Your task to perform on an android device: toggle improve location accuracy Image 0: 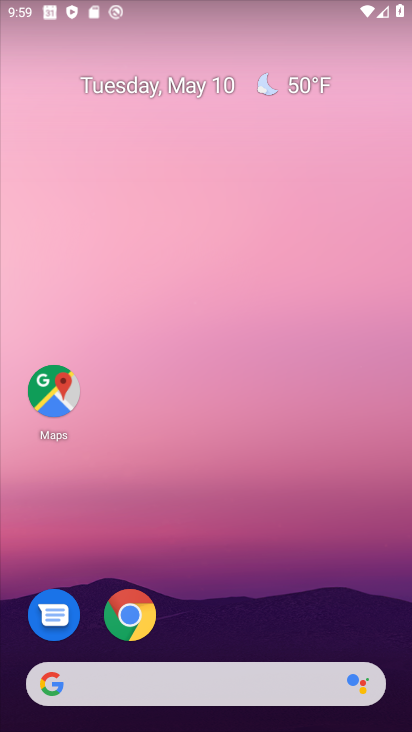
Step 0: drag from (213, 646) to (245, 160)
Your task to perform on an android device: toggle improve location accuracy Image 1: 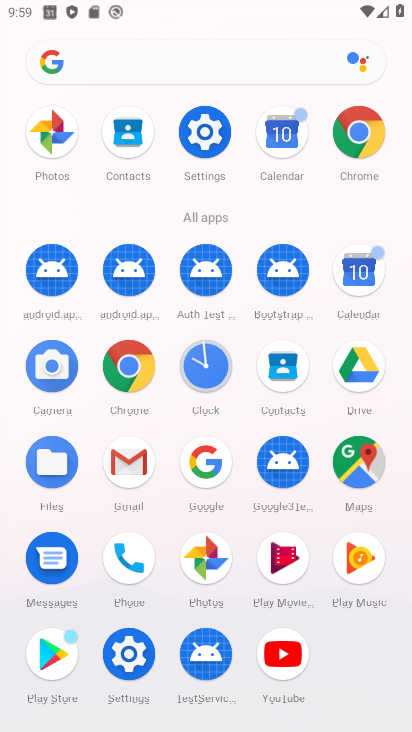
Step 1: click (204, 124)
Your task to perform on an android device: toggle improve location accuracy Image 2: 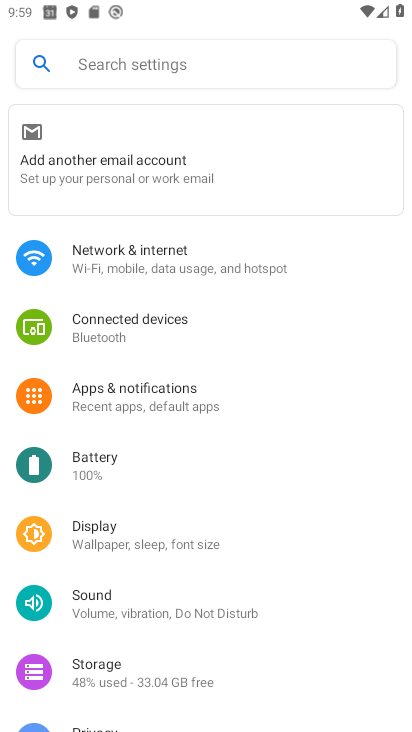
Step 2: drag from (157, 646) to (179, 230)
Your task to perform on an android device: toggle improve location accuracy Image 3: 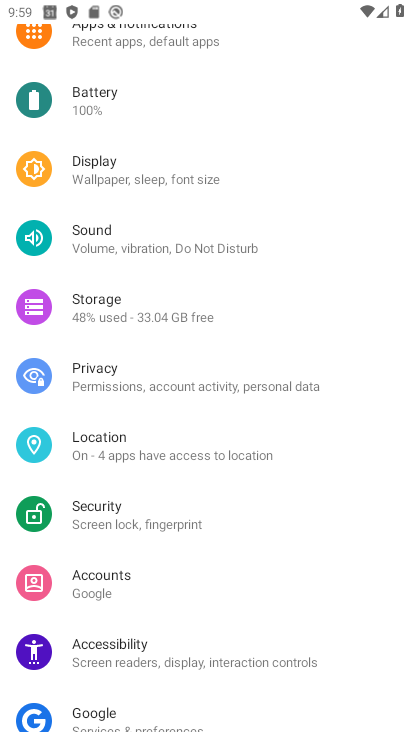
Step 3: click (137, 439)
Your task to perform on an android device: toggle improve location accuracy Image 4: 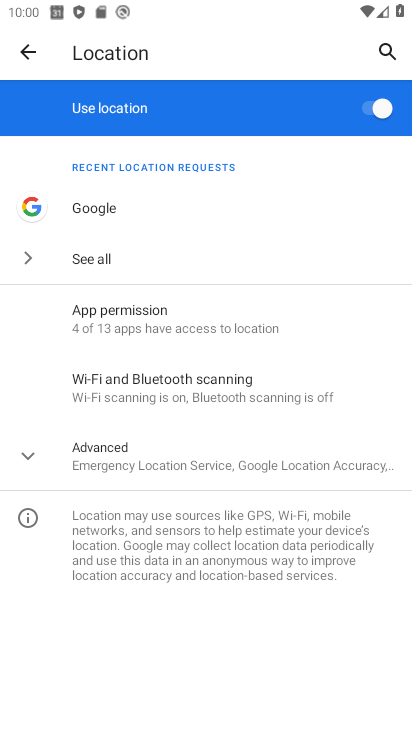
Step 4: click (71, 452)
Your task to perform on an android device: toggle improve location accuracy Image 5: 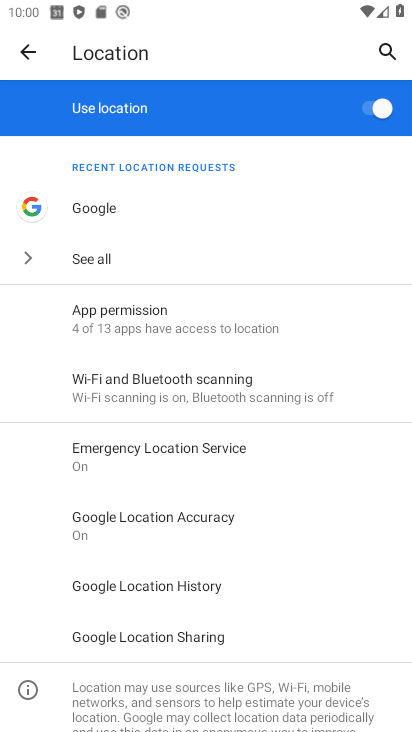
Step 5: click (114, 529)
Your task to perform on an android device: toggle improve location accuracy Image 6: 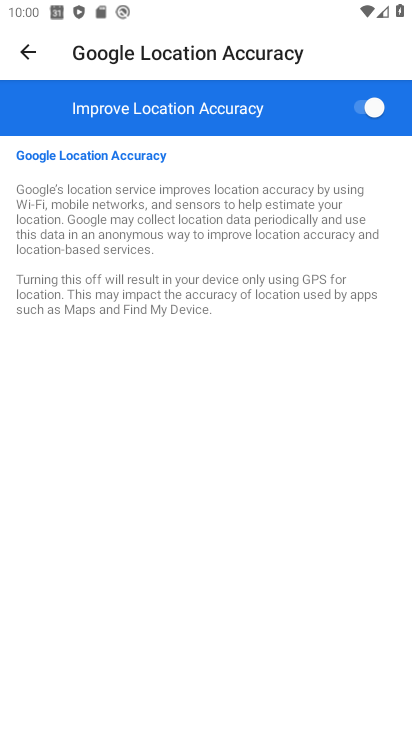
Step 6: task complete